Your task to perform on an android device: turn smart compose on in the gmail app Image 0: 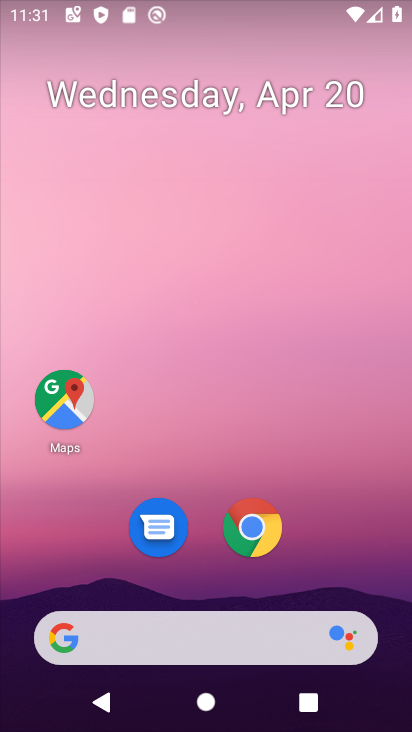
Step 0: drag from (323, 590) to (288, 127)
Your task to perform on an android device: turn smart compose on in the gmail app Image 1: 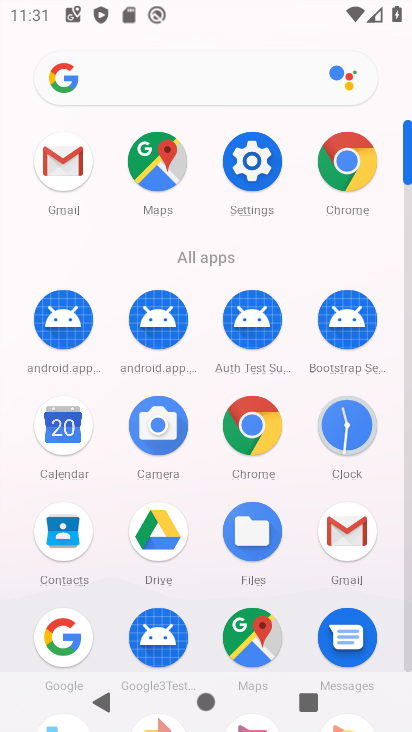
Step 1: click (350, 542)
Your task to perform on an android device: turn smart compose on in the gmail app Image 2: 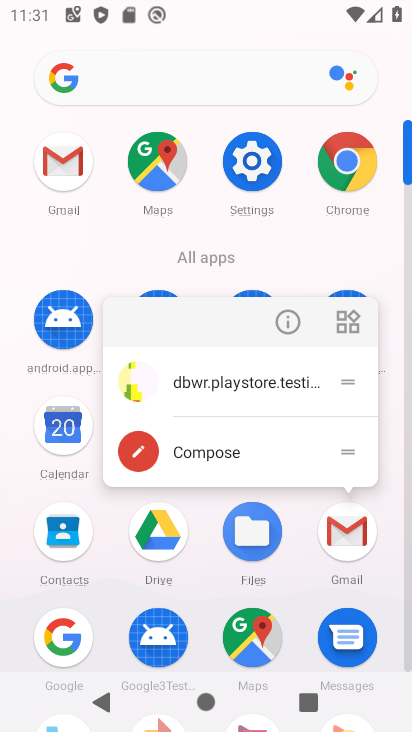
Step 2: click (350, 542)
Your task to perform on an android device: turn smart compose on in the gmail app Image 3: 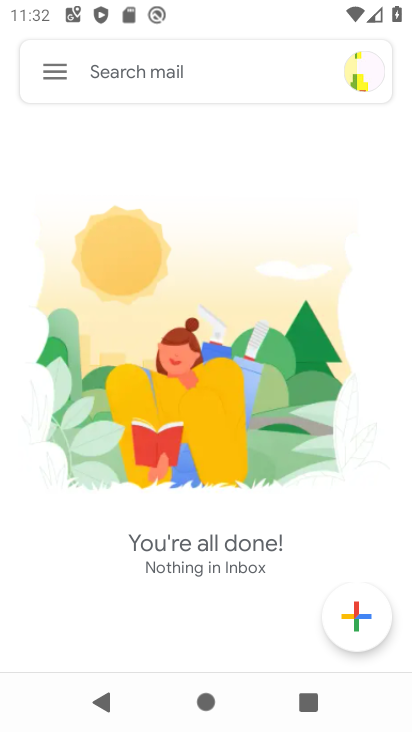
Step 3: click (49, 66)
Your task to perform on an android device: turn smart compose on in the gmail app Image 4: 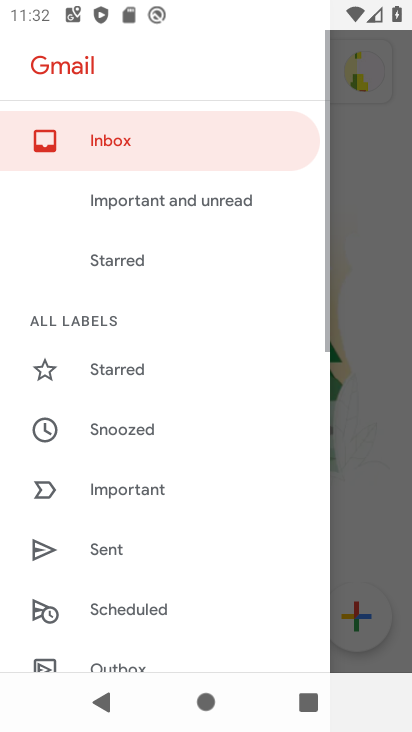
Step 4: drag from (132, 563) to (207, 40)
Your task to perform on an android device: turn smart compose on in the gmail app Image 5: 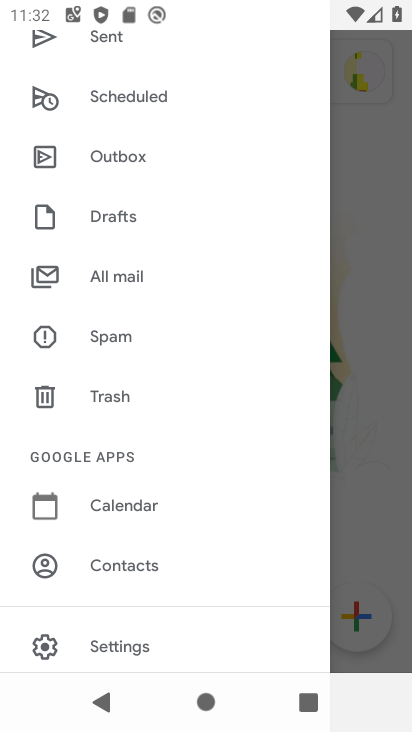
Step 5: click (120, 636)
Your task to perform on an android device: turn smart compose on in the gmail app Image 6: 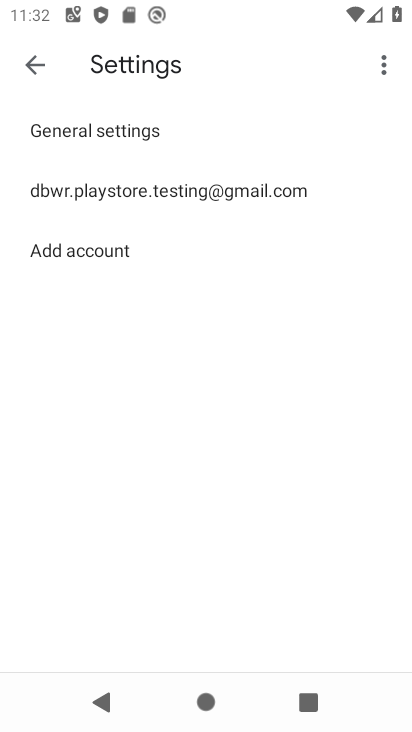
Step 6: click (201, 184)
Your task to perform on an android device: turn smart compose on in the gmail app Image 7: 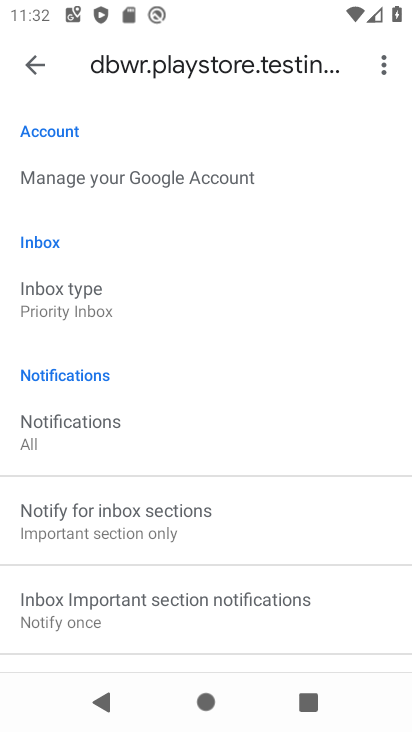
Step 7: task complete